Your task to perform on an android device: Open sound settings Image 0: 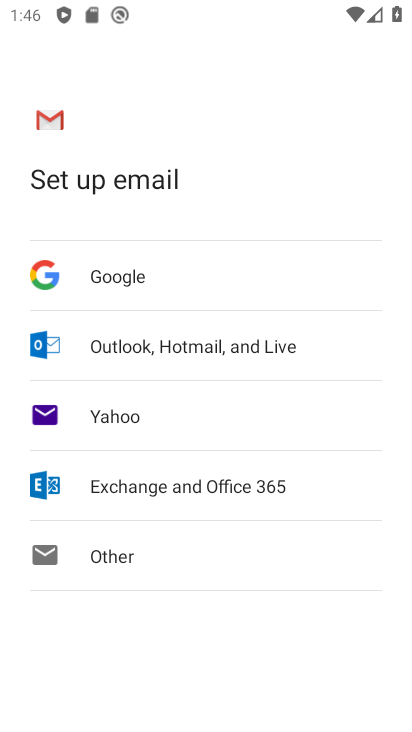
Step 0: press home button
Your task to perform on an android device: Open sound settings Image 1: 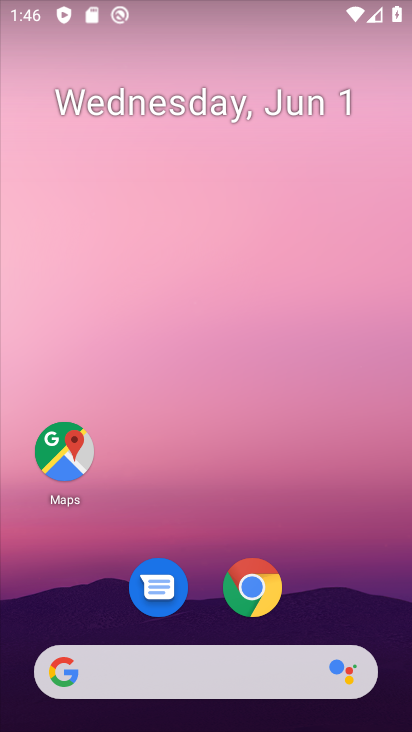
Step 1: drag from (327, 579) to (279, 152)
Your task to perform on an android device: Open sound settings Image 2: 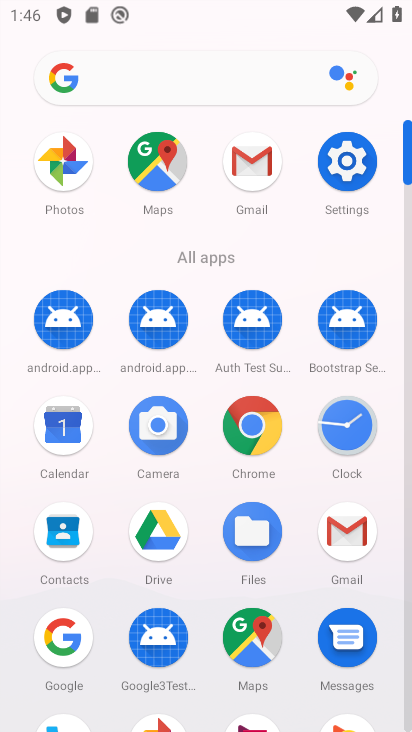
Step 2: click (337, 165)
Your task to perform on an android device: Open sound settings Image 3: 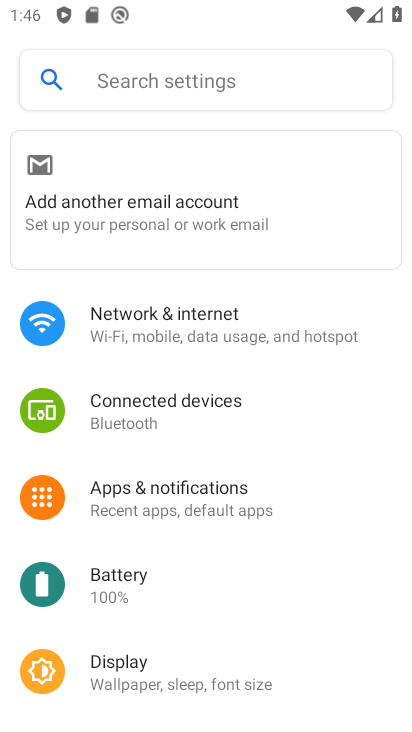
Step 3: drag from (373, 673) to (364, 376)
Your task to perform on an android device: Open sound settings Image 4: 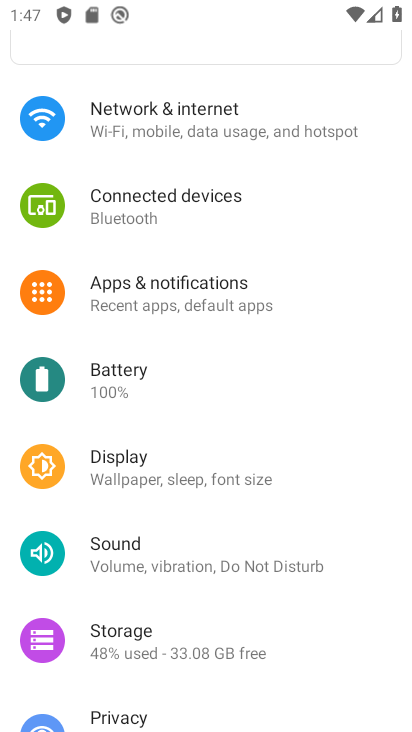
Step 4: click (194, 551)
Your task to perform on an android device: Open sound settings Image 5: 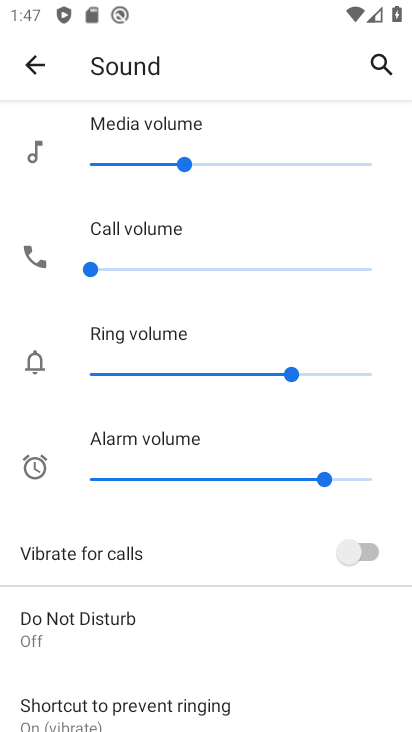
Step 5: task complete